Your task to perform on an android device: Go to Yahoo.com Image 0: 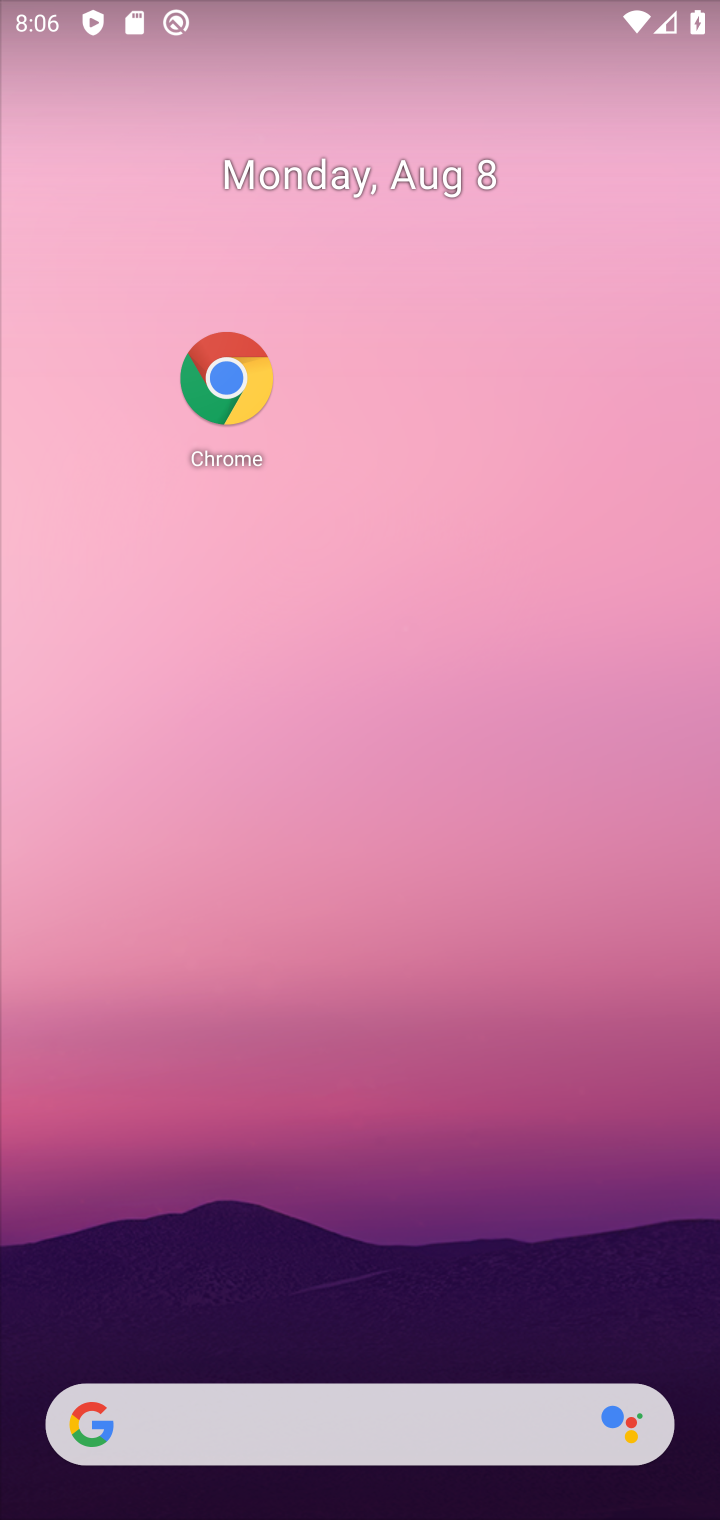
Step 0: drag from (310, 1359) to (159, 94)
Your task to perform on an android device: Go to Yahoo.com Image 1: 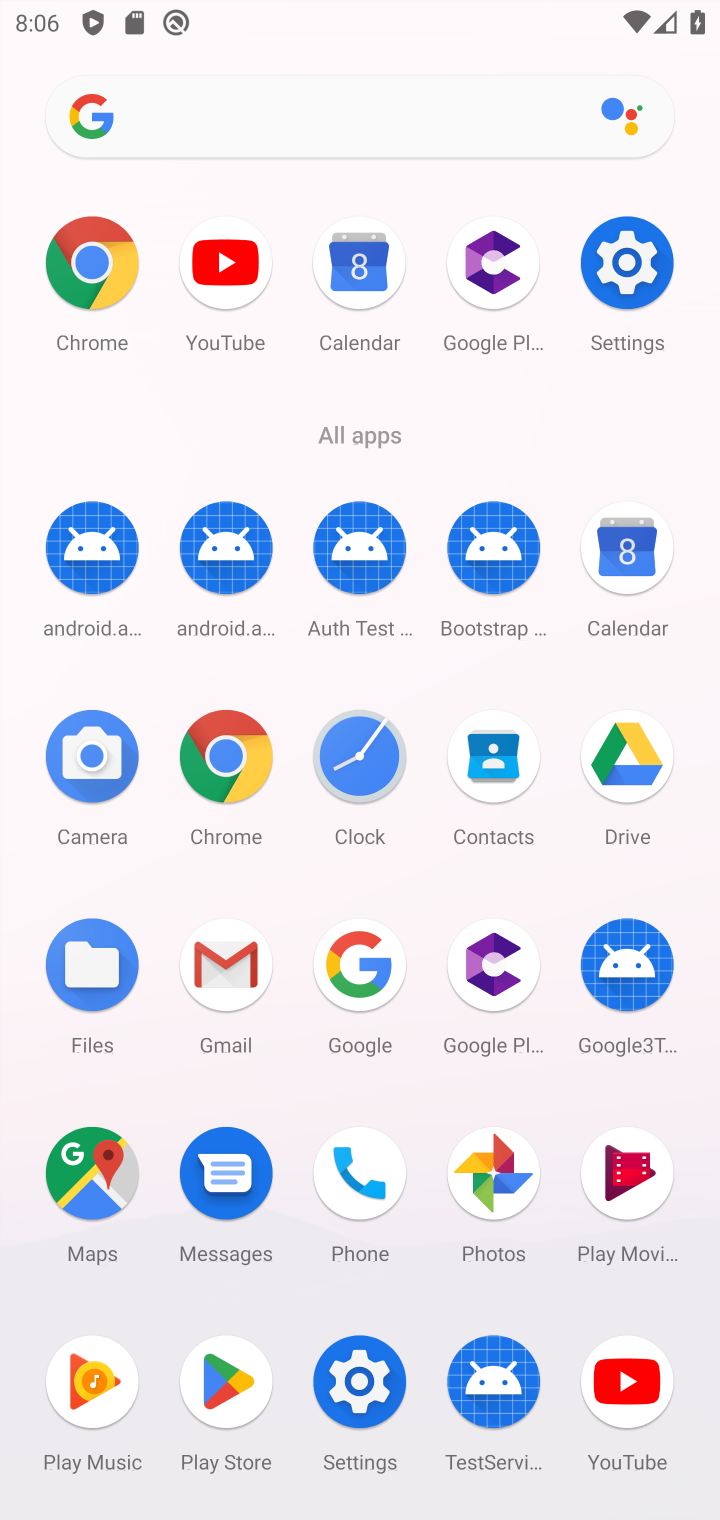
Step 1: click (94, 261)
Your task to perform on an android device: Go to Yahoo.com Image 2: 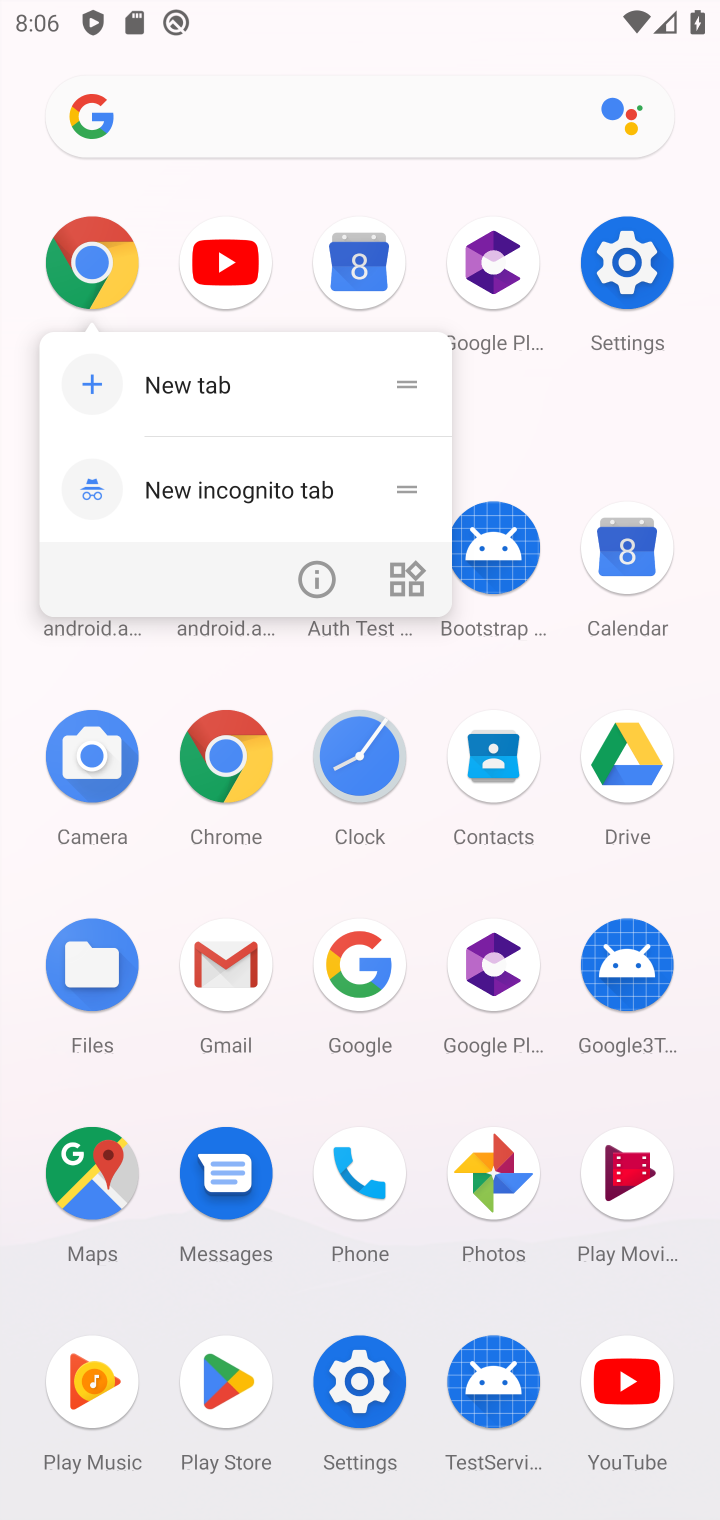
Step 2: click (94, 262)
Your task to perform on an android device: Go to Yahoo.com Image 3: 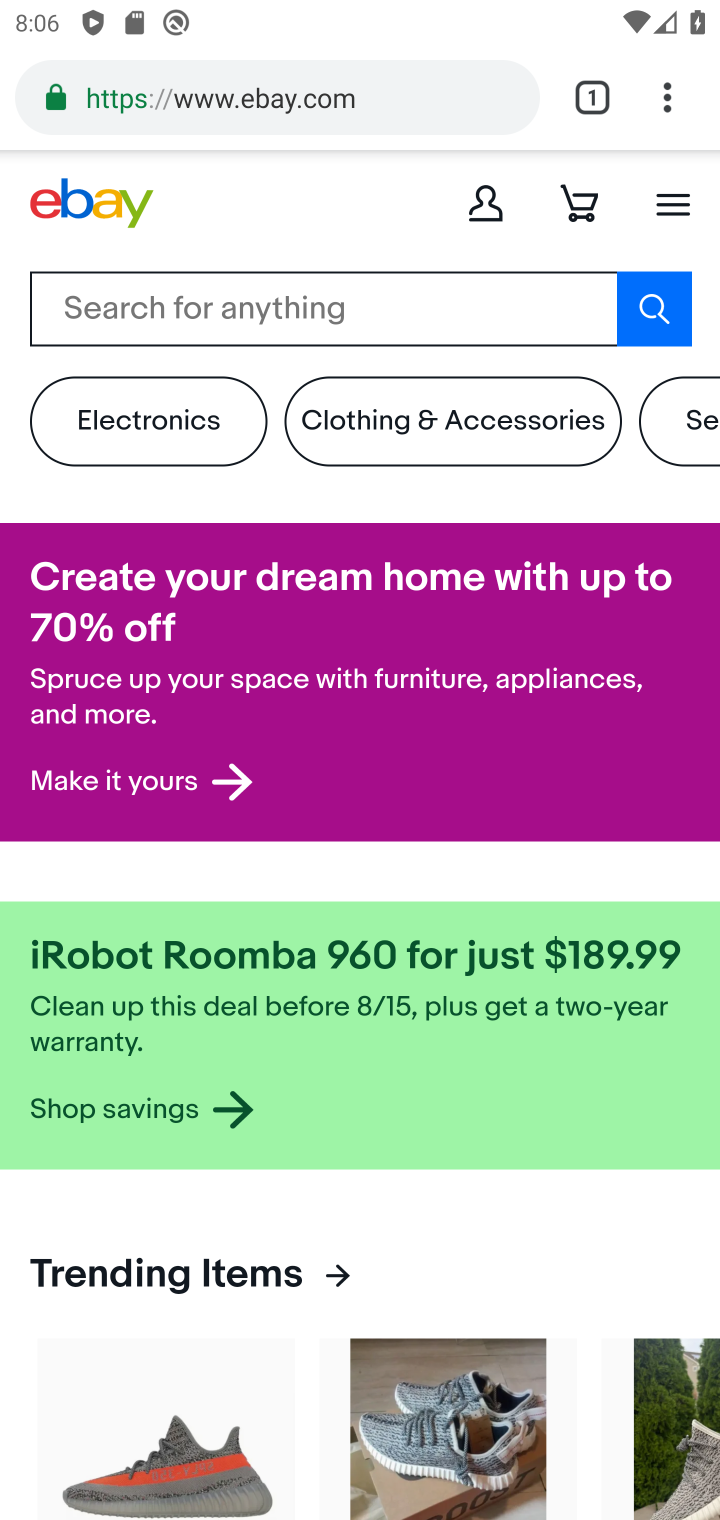
Step 3: click (390, 94)
Your task to perform on an android device: Go to Yahoo.com Image 4: 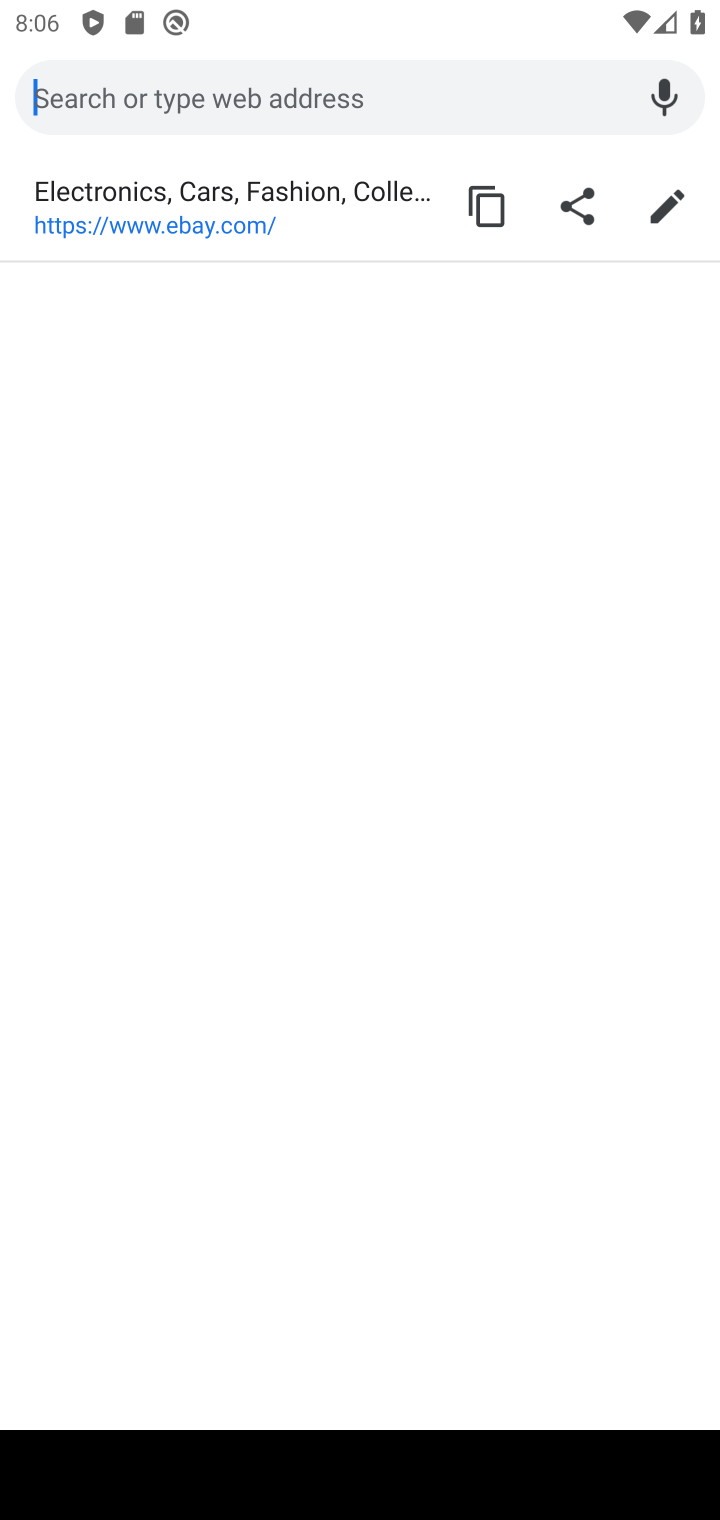
Step 4: type "Yahoo.com"
Your task to perform on an android device: Go to Yahoo.com Image 5: 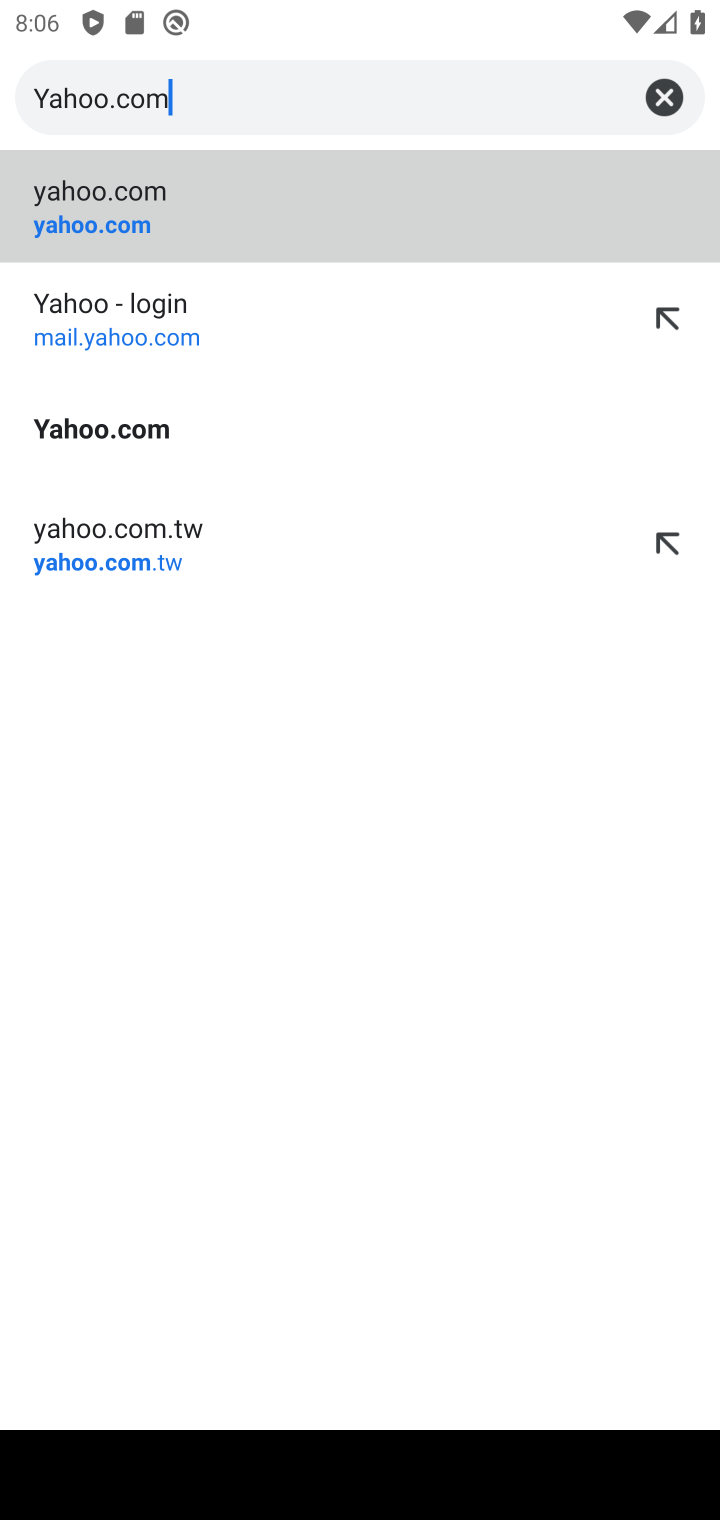
Step 5: click (71, 193)
Your task to perform on an android device: Go to Yahoo.com Image 6: 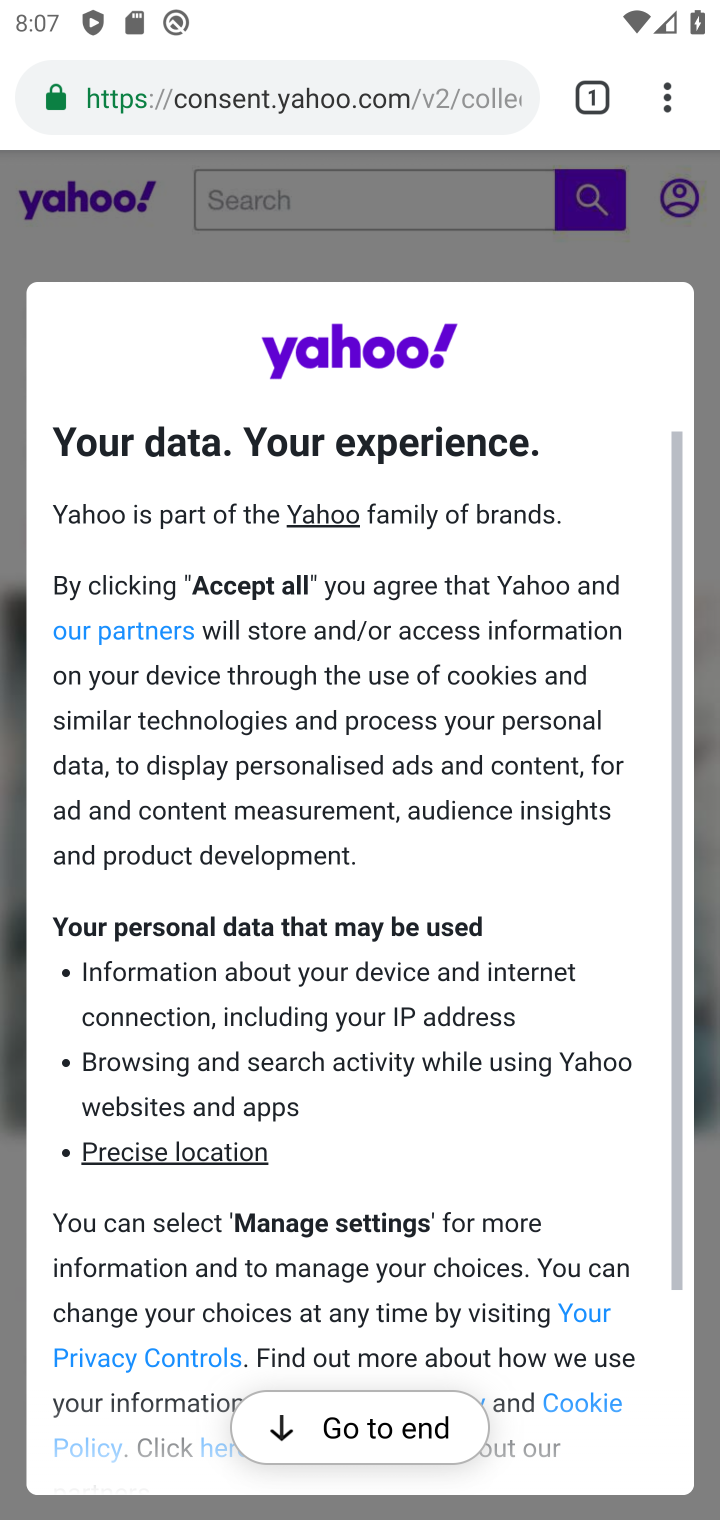
Step 6: task complete